Your task to perform on an android device: Search for Italian restaurants on Maps Image 0: 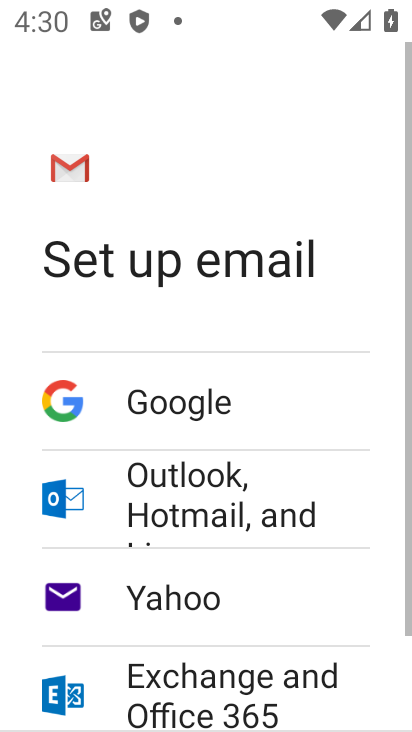
Step 0: press home button
Your task to perform on an android device: Search for Italian restaurants on Maps Image 1: 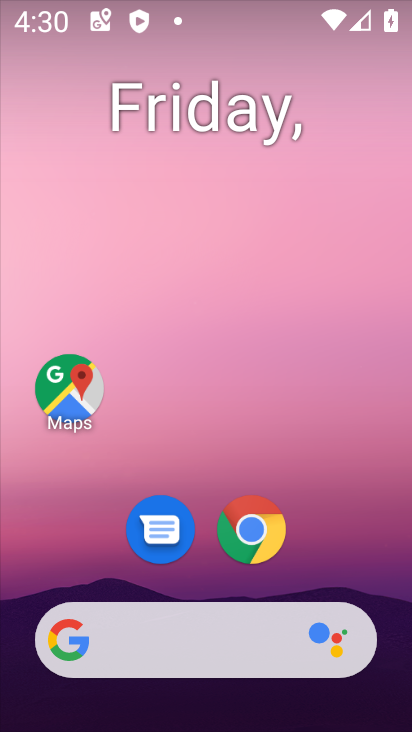
Step 1: click (64, 397)
Your task to perform on an android device: Search for Italian restaurants on Maps Image 2: 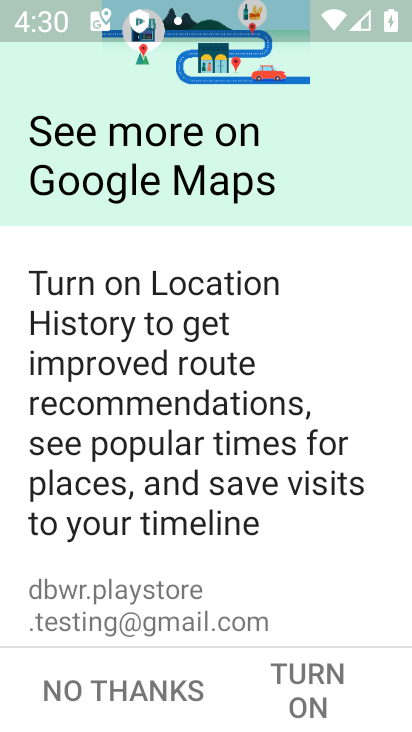
Step 2: click (121, 694)
Your task to perform on an android device: Search for Italian restaurants on Maps Image 3: 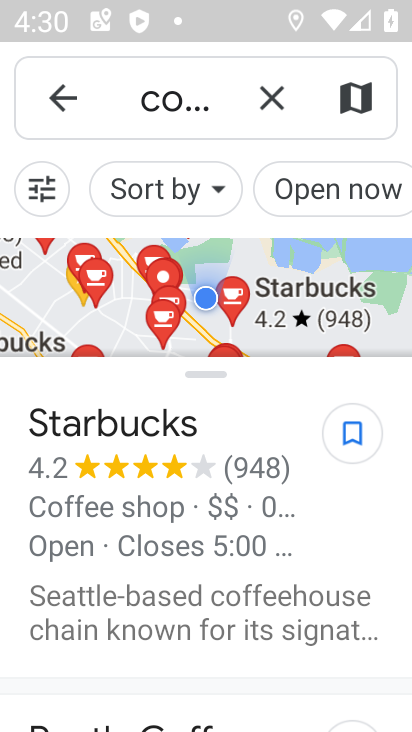
Step 3: click (268, 101)
Your task to perform on an android device: Search for Italian restaurants on Maps Image 4: 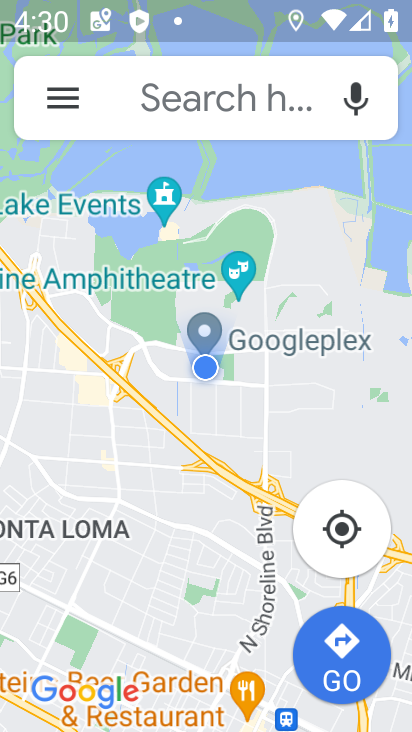
Step 4: click (214, 99)
Your task to perform on an android device: Search for Italian restaurants on Maps Image 5: 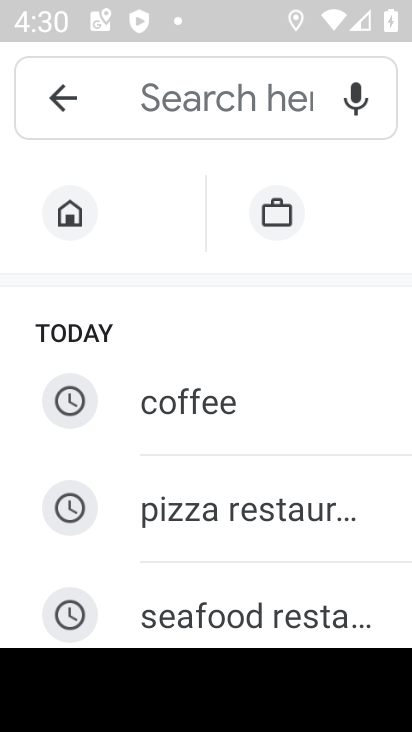
Step 5: click (218, 290)
Your task to perform on an android device: Search for Italian restaurants on Maps Image 6: 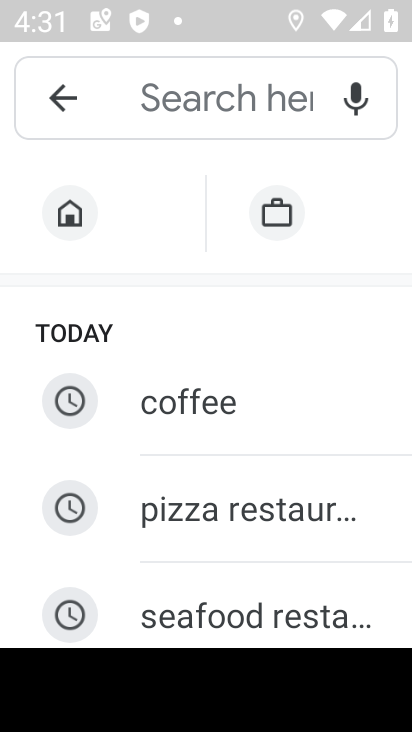
Step 6: drag from (215, 556) to (183, 271)
Your task to perform on an android device: Search for Italian restaurants on Maps Image 7: 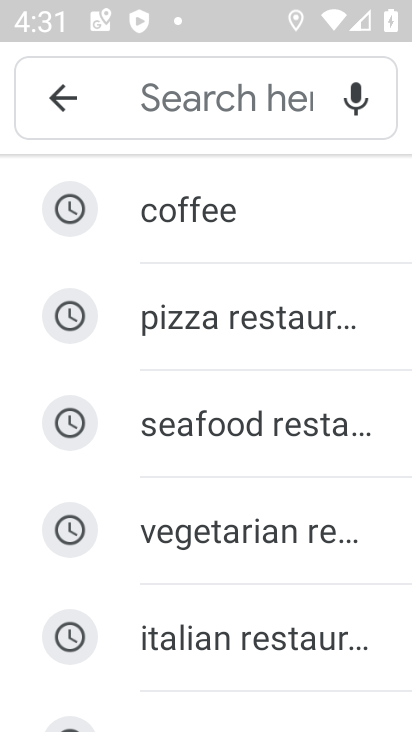
Step 7: click (222, 270)
Your task to perform on an android device: Search for Italian restaurants on Maps Image 8: 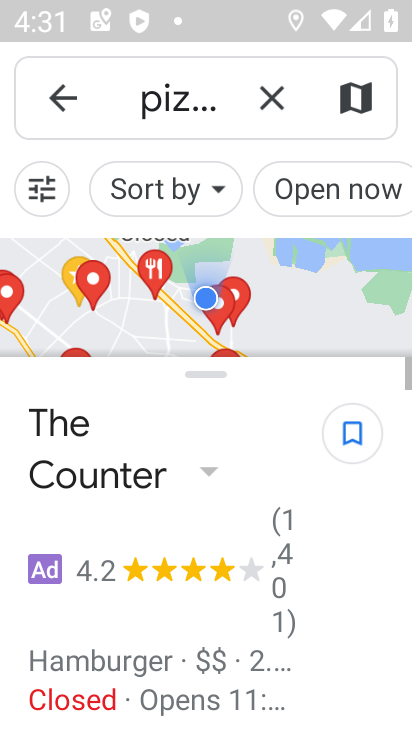
Step 8: click (215, 642)
Your task to perform on an android device: Search for Italian restaurants on Maps Image 9: 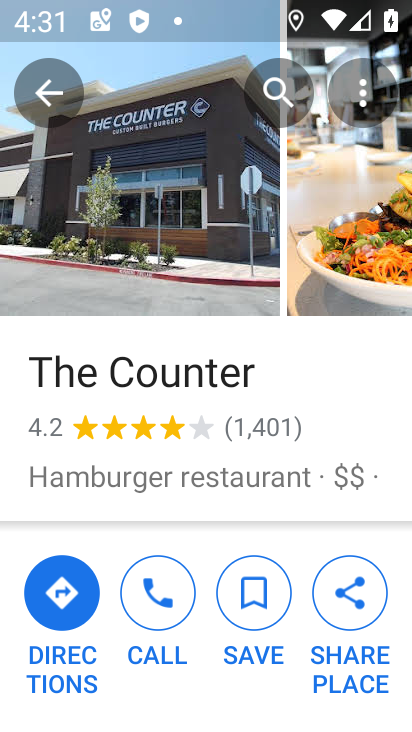
Step 9: task complete